Your task to perform on an android device: show emergency info Image 0: 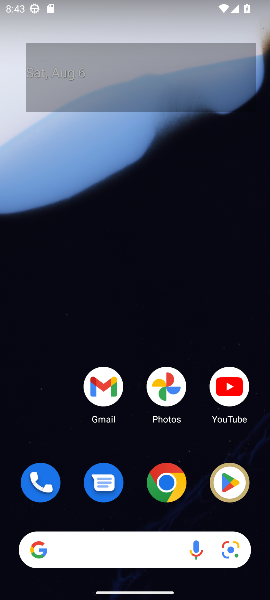
Step 0: drag from (124, 72) to (139, 28)
Your task to perform on an android device: show emergency info Image 1: 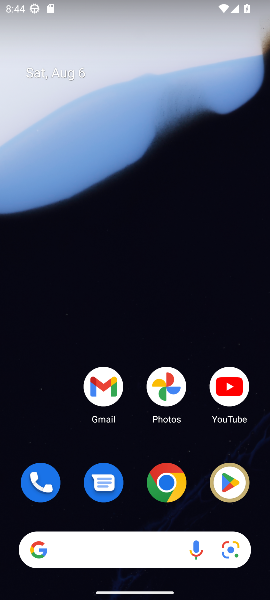
Step 1: drag from (15, 524) to (133, 170)
Your task to perform on an android device: show emergency info Image 2: 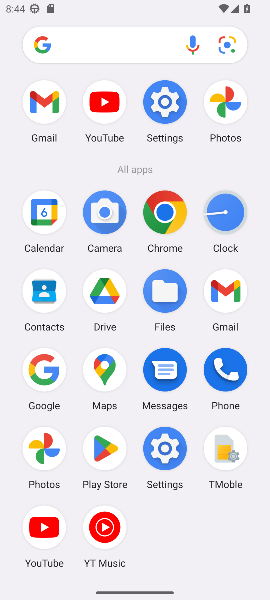
Step 2: click (174, 439)
Your task to perform on an android device: show emergency info Image 3: 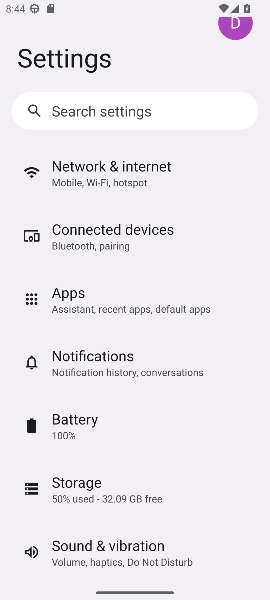
Step 3: drag from (242, 533) to (262, 284)
Your task to perform on an android device: show emergency info Image 4: 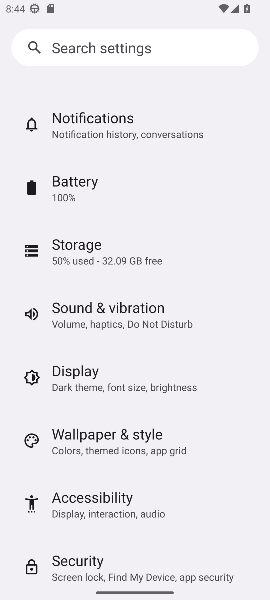
Step 4: click (112, 125)
Your task to perform on an android device: show emergency info Image 5: 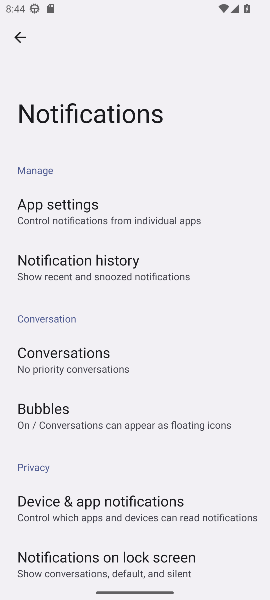
Step 5: drag from (227, 574) to (242, 261)
Your task to perform on an android device: show emergency info Image 6: 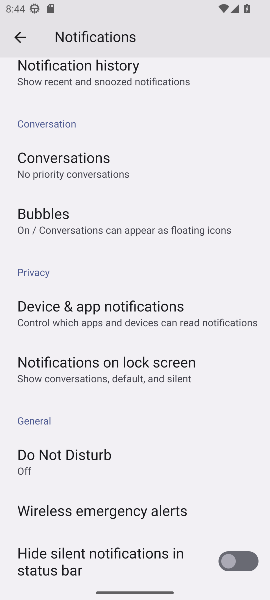
Step 6: drag from (234, 494) to (213, 291)
Your task to perform on an android device: show emergency info Image 7: 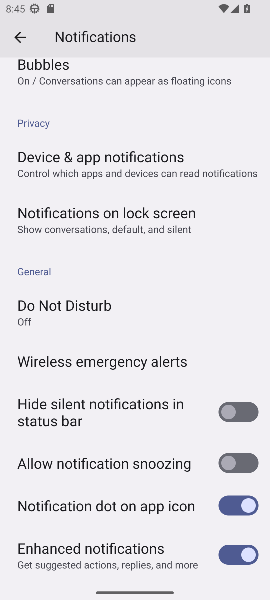
Step 7: click (101, 357)
Your task to perform on an android device: show emergency info Image 8: 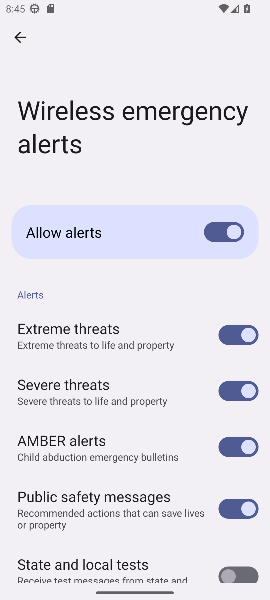
Step 8: task complete